Your task to perform on an android device: see tabs open on other devices in the chrome app Image 0: 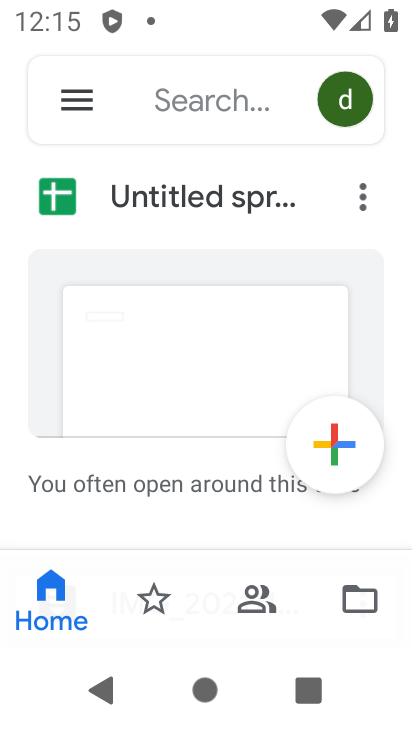
Step 0: press home button
Your task to perform on an android device: see tabs open on other devices in the chrome app Image 1: 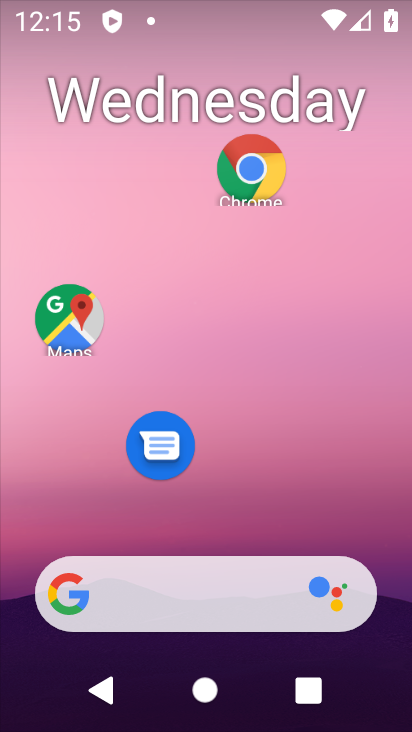
Step 1: click (259, 180)
Your task to perform on an android device: see tabs open on other devices in the chrome app Image 2: 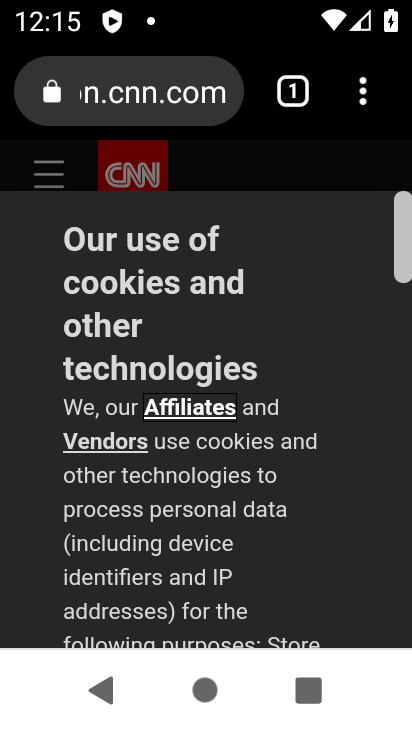
Step 2: click (356, 93)
Your task to perform on an android device: see tabs open on other devices in the chrome app Image 3: 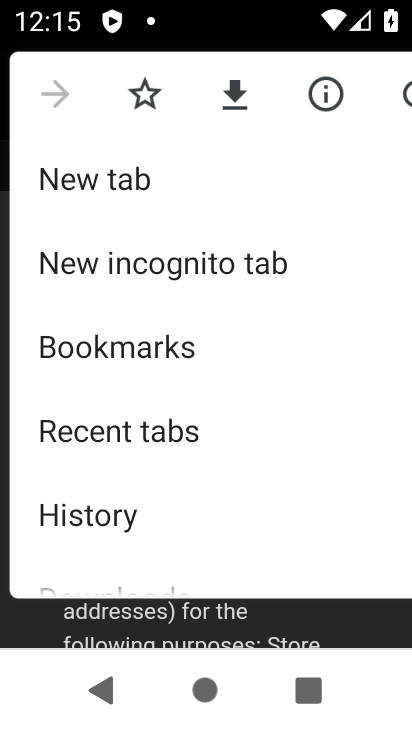
Step 3: click (100, 448)
Your task to perform on an android device: see tabs open on other devices in the chrome app Image 4: 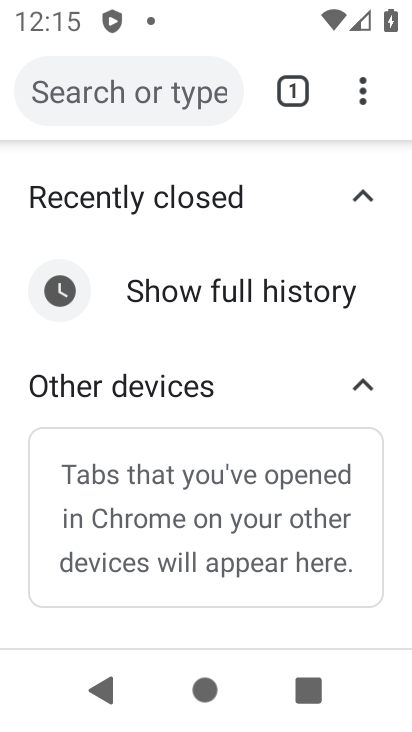
Step 4: task complete